Your task to perform on an android device: turn off location Image 0: 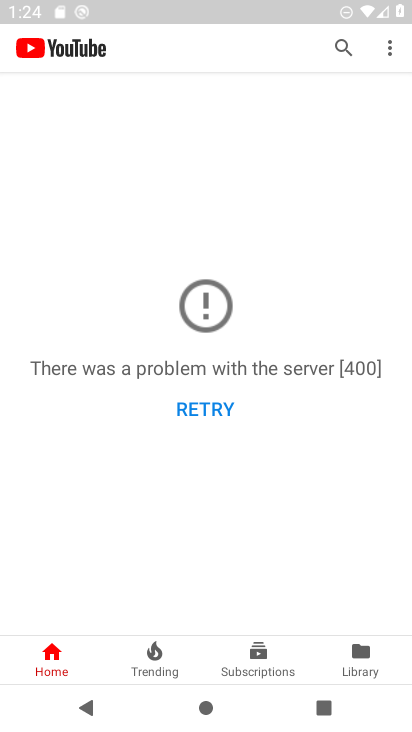
Step 0: press home button
Your task to perform on an android device: turn off location Image 1: 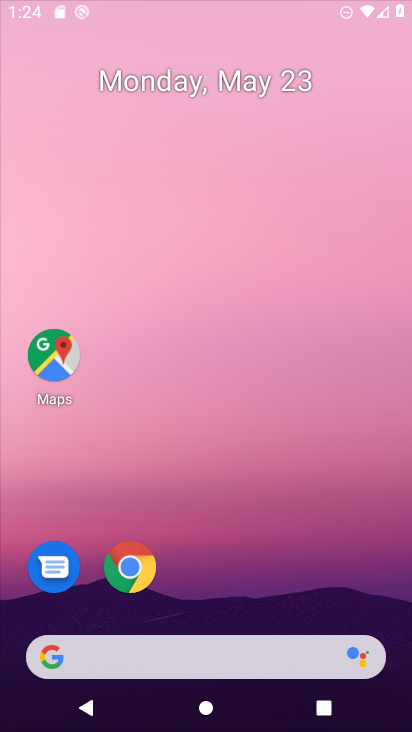
Step 1: drag from (293, 553) to (289, 17)
Your task to perform on an android device: turn off location Image 2: 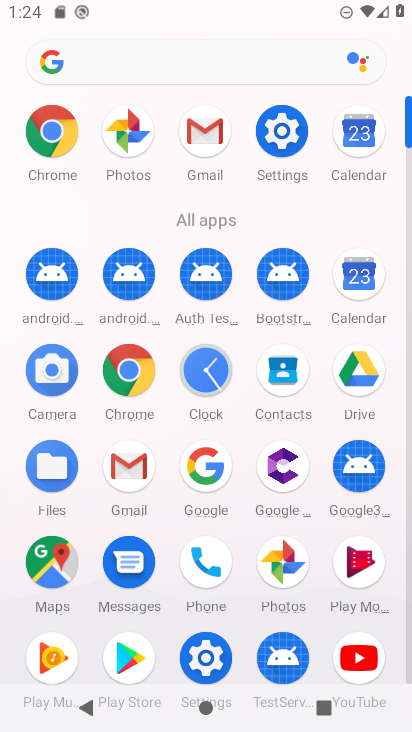
Step 2: click (293, 153)
Your task to perform on an android device: turn off location Image 3: 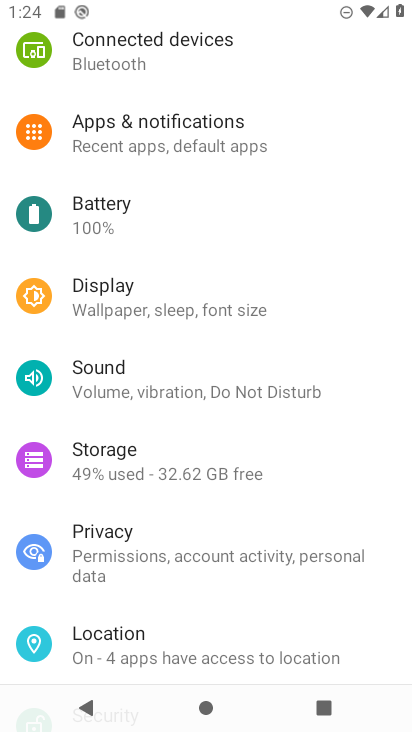
Step 3: drag from (126, 545) to (162, 226)
Your task to perform on an android device: turn off location Image 4: 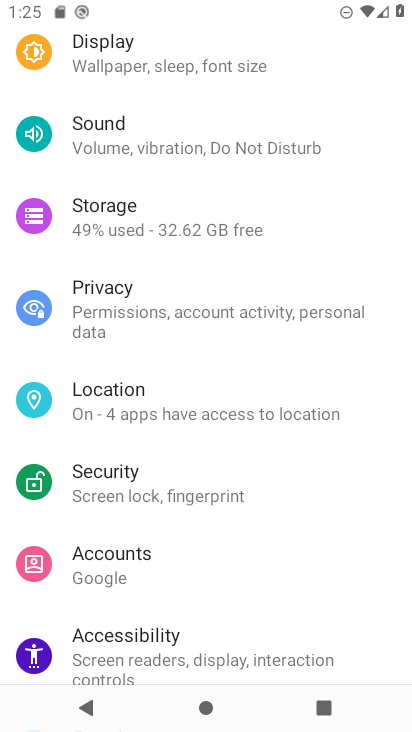
Step 4: click (150, 389)
Your task to perform on an android device: turn off location Image 5: 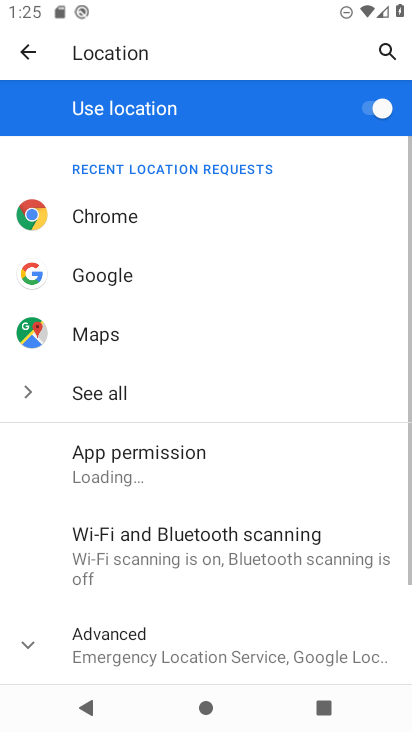
Step 5: click (338, 109)
Your task to perform on an android device: turn off location Image 6: 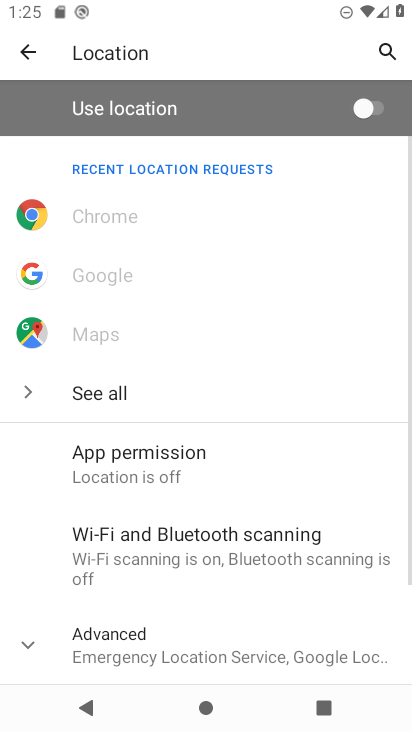
Step 6: task complete